Your task to perform on an android device: turn on javascript in the chrome app Image 0: 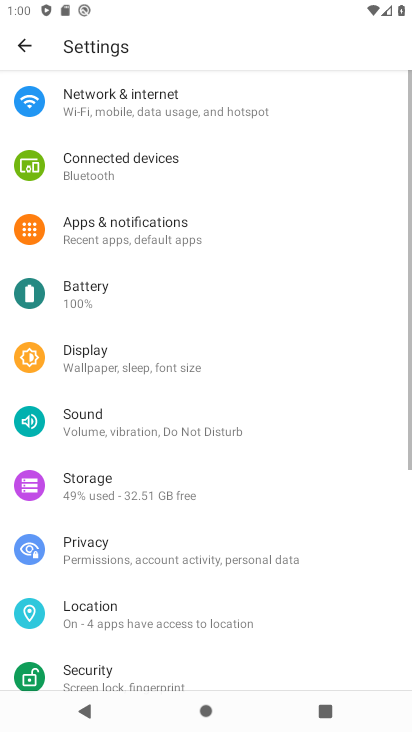
Step 0: press home button
Your task to perform on an android device: turn on javascript in the chrome app Image 1: 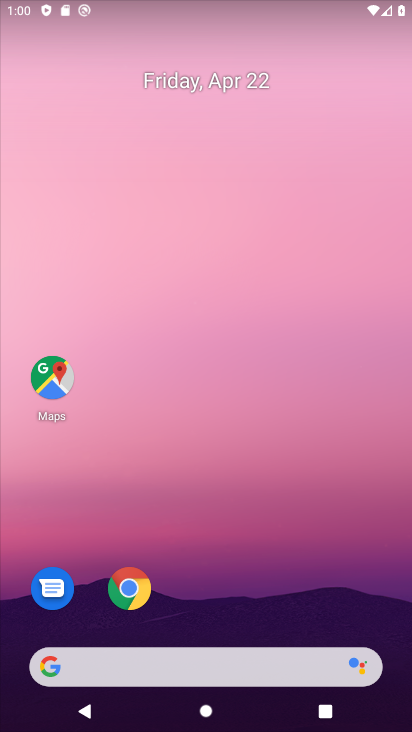
Step 1: drag from (377, 595) to (377, 66)
Your task to perform on an android device: turn on javascript in the chrome app Image 2: 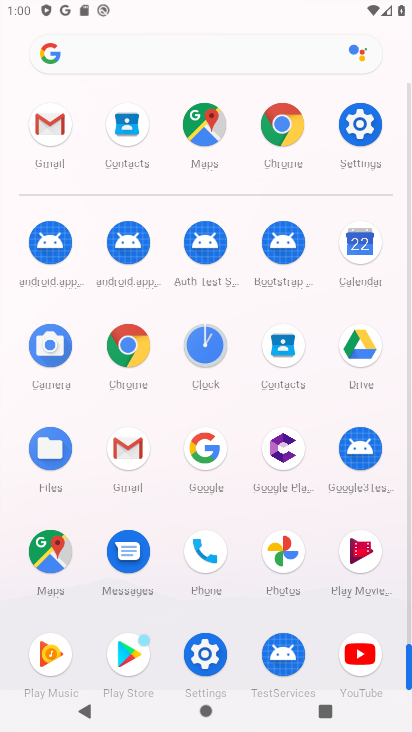
Step 2: click (141, 359)
Your task to perform on an android device: turn on javascript in the chrome app Image 3: 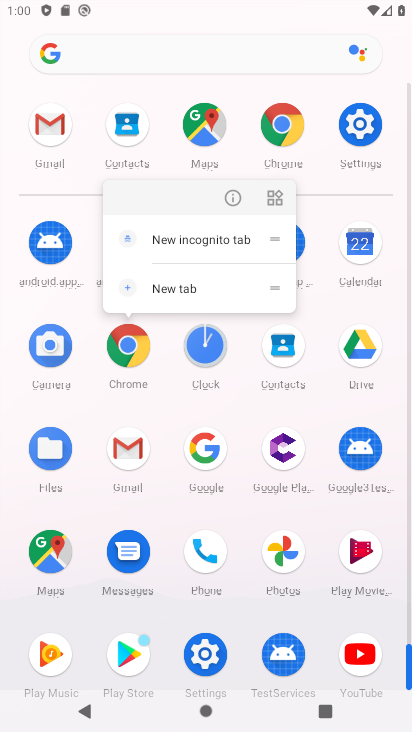
Step 3: click (141, 357)
Your task to perform on an android device: turn on javascript in the chrome app Image 4: 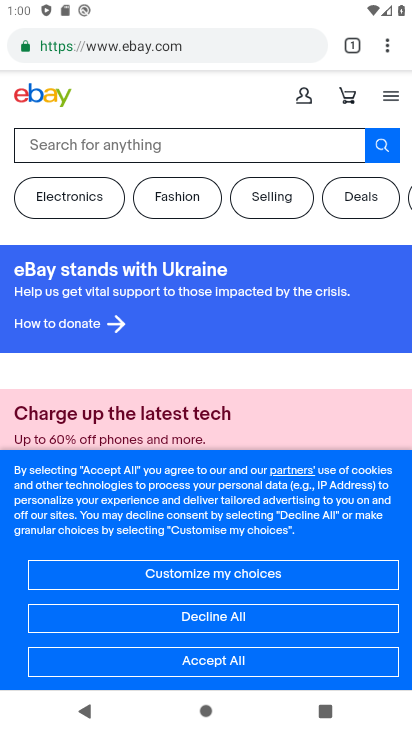
Step 4: drag from (386, 54) to (255, 601)
Your task to perform on an android device: turn on javascript in the chrome app Image 5: 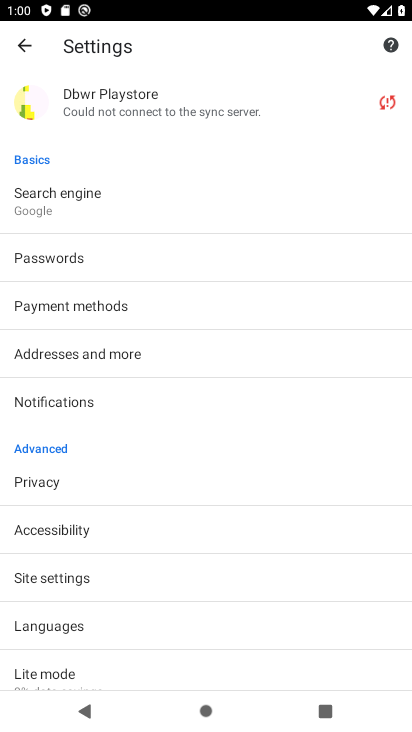
Step 5: drag from (236, 617) to (248, 240)
Your task to perform on an android device: turn on javascript in the chrome app Image 6: 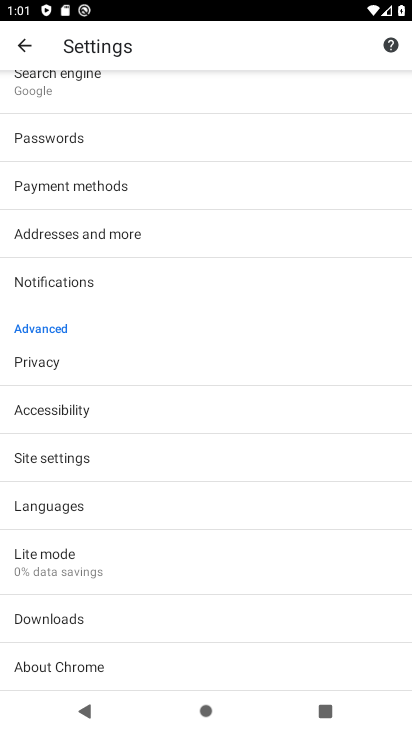
Step 6: click (112, 455)
Your task to perform on an android device: turn on javascript in the chrome app Image 7: 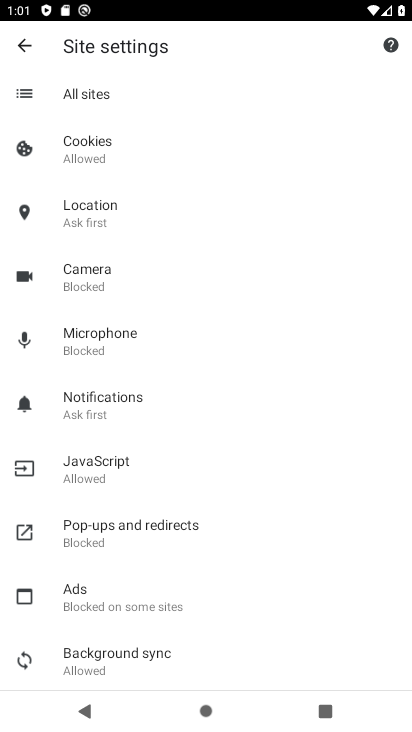
Step 7: click (117, 458)
Your task to perform on an android device: turn on javascript in the chrome app Image 8: 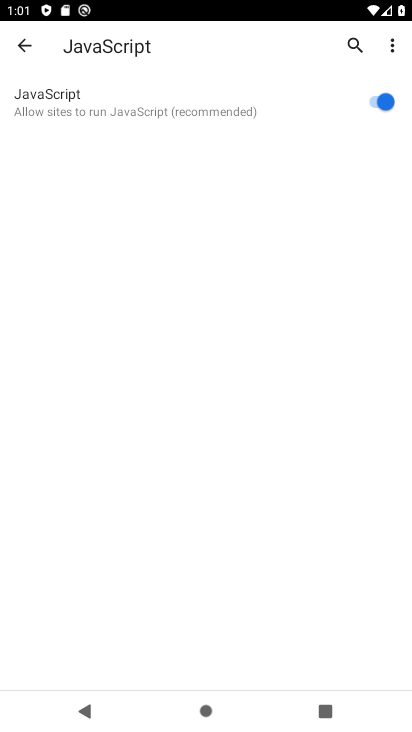
Step 8: task complete